Your task to perform on an android device: toggle javascript in the chrome app Image 0: 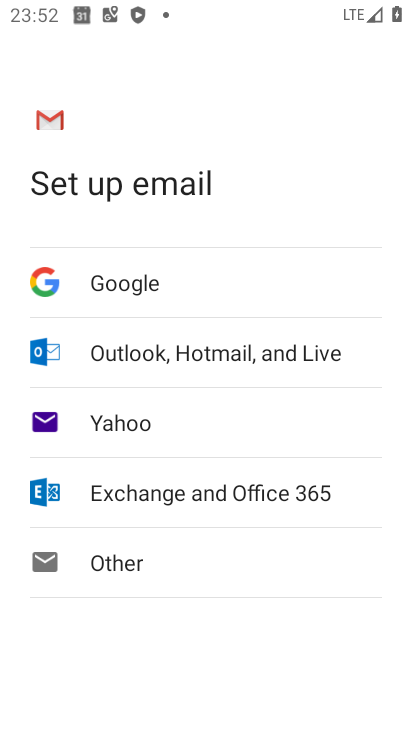
Step 0: press home button
Your task to perform on an android device: toggle javascript in the chrome app Image 1: 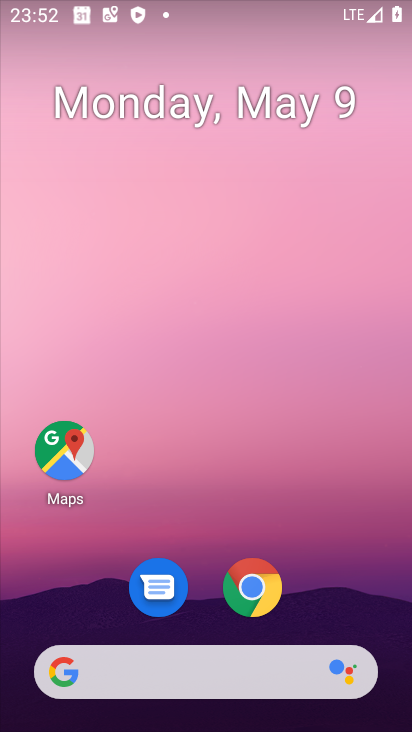
Step 1: click (256, 593)
Your task to perform on an android device: toggle javascript in the chrome app Image 2: 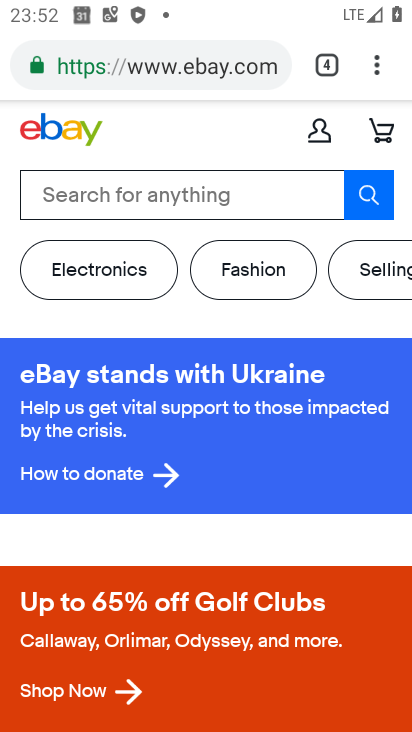
Step 2: click (367, 57)
Your task to perform on an android device: toggle javascript in the chrome app Image 3: 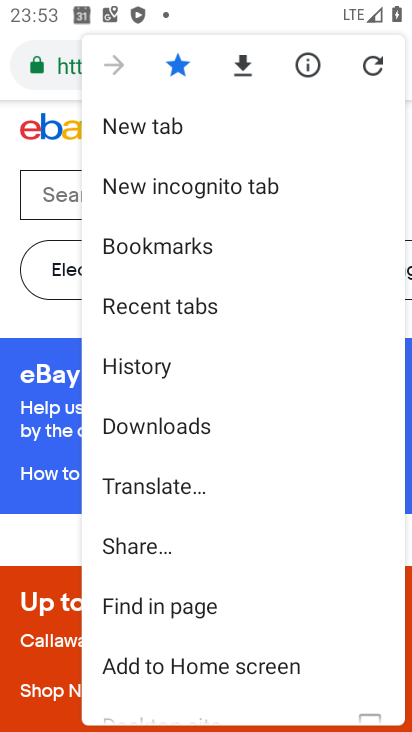
Step 3: drag from (194, 622) to (361, 46)
Your task to perform on an android device: toggle javascript in the chrome app Image 4: 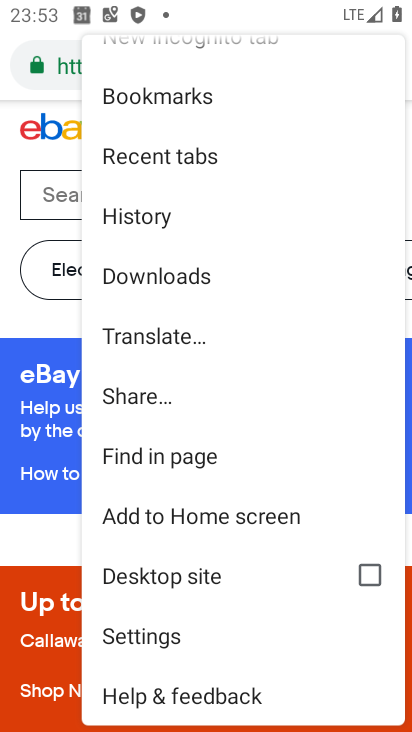
Step 4: click (199, 647)
Your task to perform on an android device: toggle javascript in the chrome app Image 5: 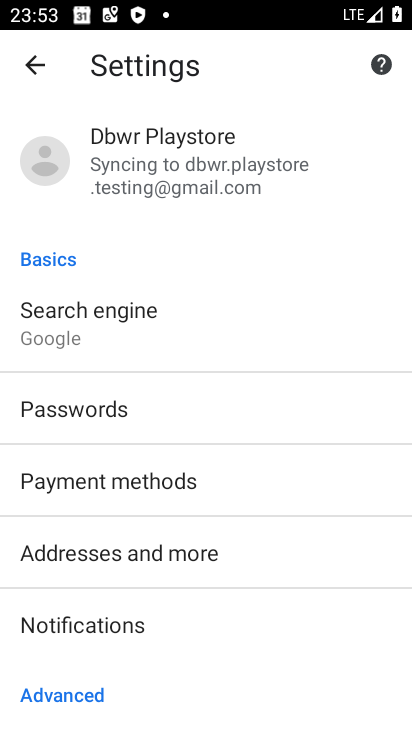
Step 5: drag from (194, 650) to (181, 450)
Your task to perform on an android device: toggle javascript in the chrome app Image 6: 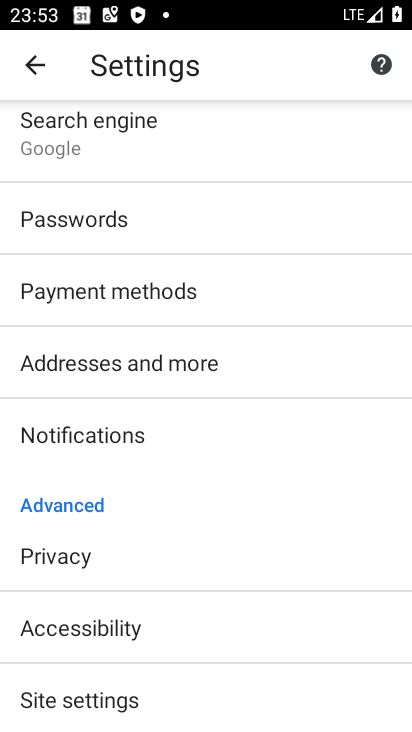
Step 6: drag from (134, 629) to (116, 230)
Your task to perform on an android device: toggle javascript in the chrome app Image 7: 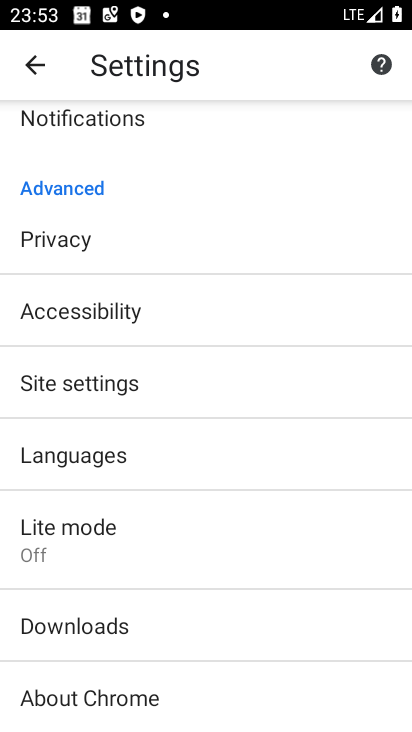
Step 7: click (104, 406)
Your task to perform on an android device: toggle javascript in the chrome app Image 8: 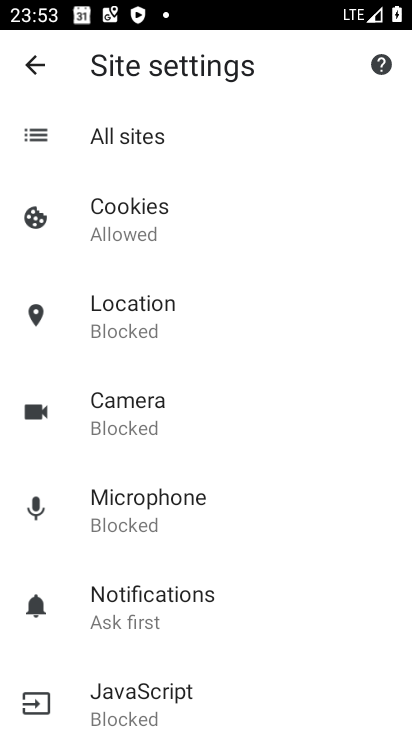
Step 8: click (176, 679)
Your task to perform on an android device: toggle javascript in the chrome app Image 9: 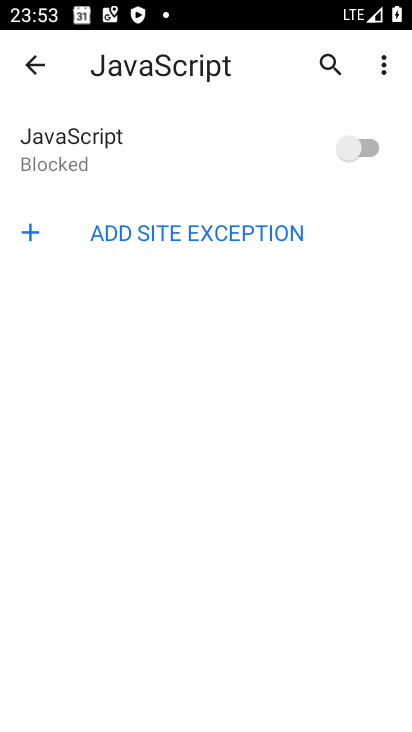
Step 9: click (371, 152)
Your task to perform on an android device: toggle javascript in the chrome app Image 10: 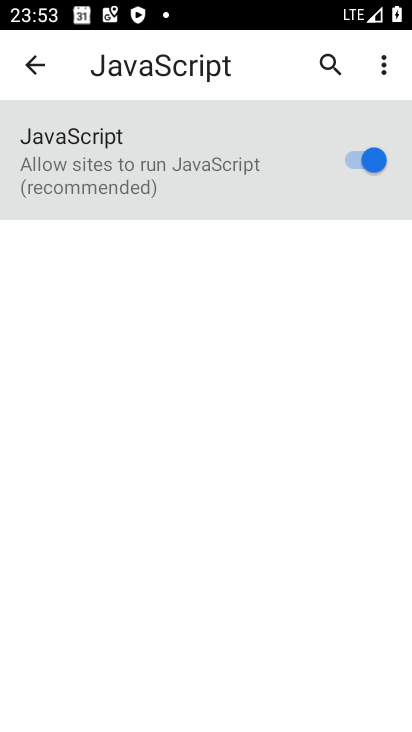
Step 10: click (371, 152)
Your task to perform on an android device: toggle javascript in the chrome app Image 11: 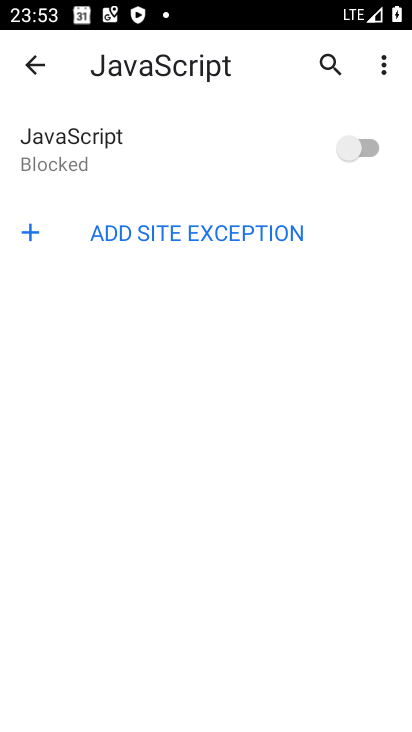
Step 11: click (371, 152)
Your task to perform on an android device: toggle javascript in the chrome app Image 12: 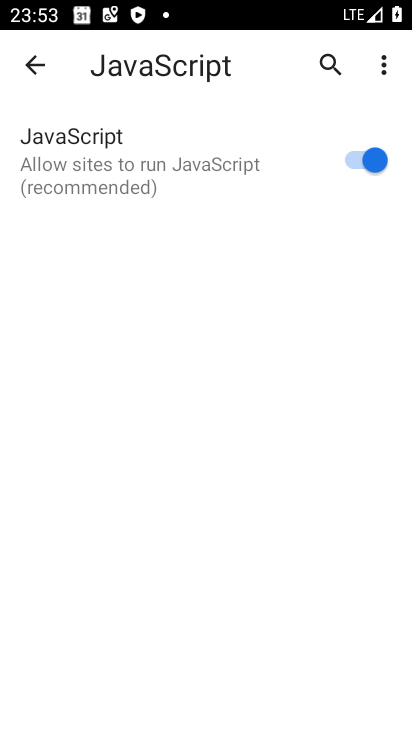
Step 12: task complete